Your task to perform on an android device: toggle translation in the chrome app Image 0: 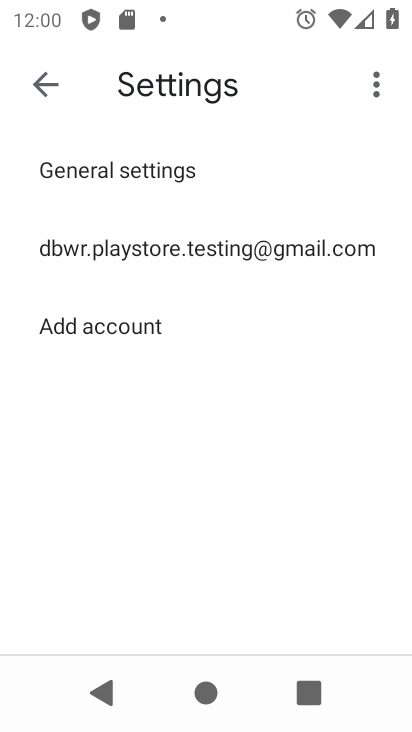
Step 0: press home button
Your task to perform on an android device: toggle translation in the chrome app Image 1: 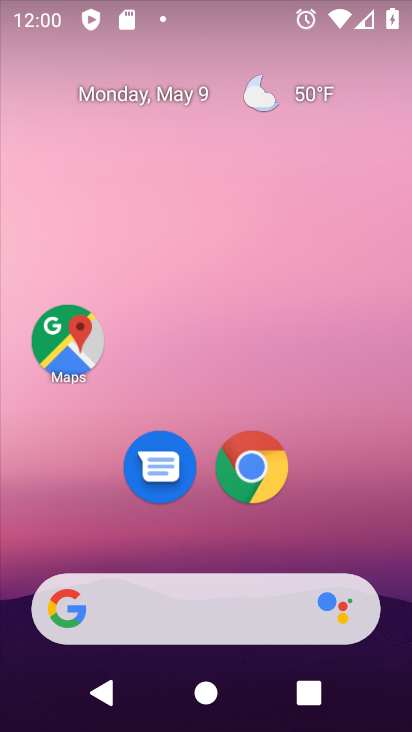
Step 1: click (250, 463)
Your task to perform on an android device: toggle translation in the chrome app Image 2: 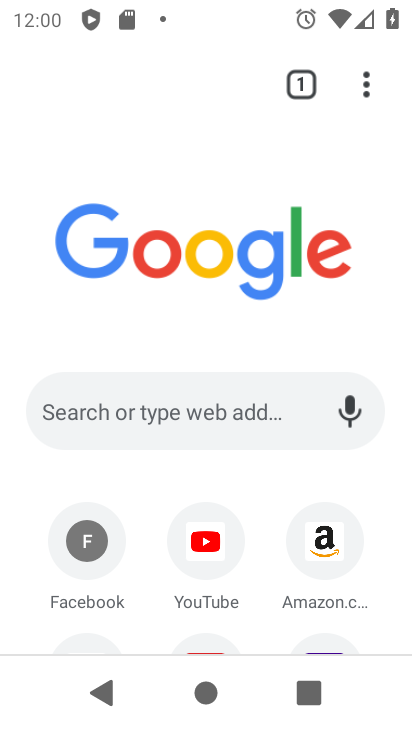
Step 2: click (367, 91)
Your task to perform on an android device: toggle translation in the chrome app Image 3: 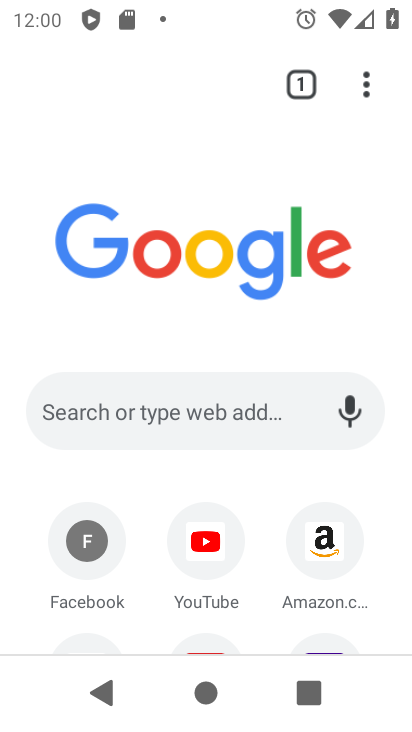
Step 3: click (366, 81)
Your task to perform on an android device: toggle translation in the chrome app Image 4: 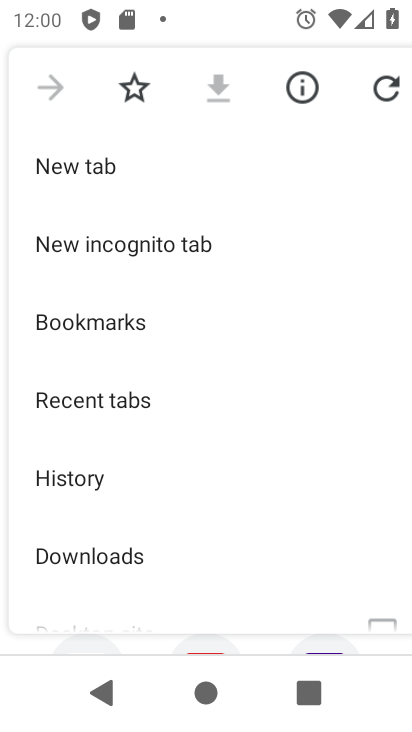
Step 4: drag from (158, 588) to (164, 211)
Your task to perform on an android device: toggle translation in the chrome app Image 5: 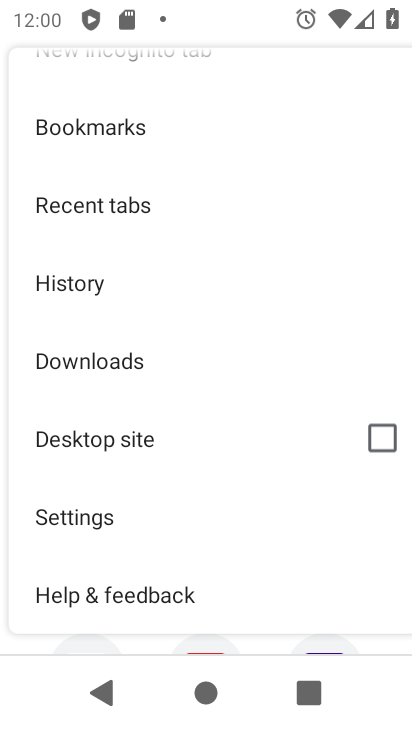
Step 5: click (168, 139)
Your task to perform on an android device: toggle translation in the chrome app Image 6: 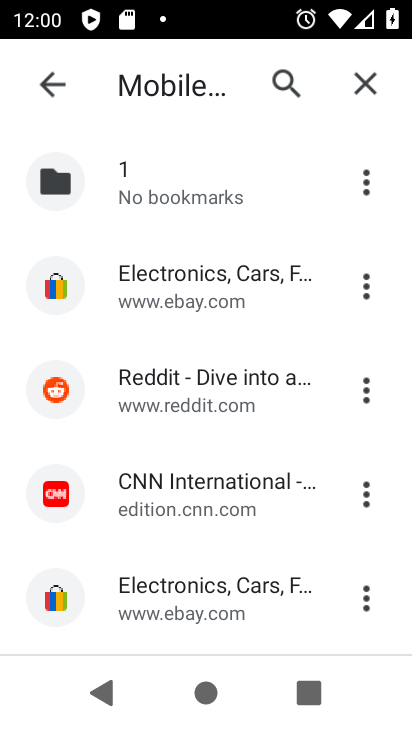
Step 6: click (353, 79)
Your task to perform on an android device: toggle translation in the chrome app Image 7: 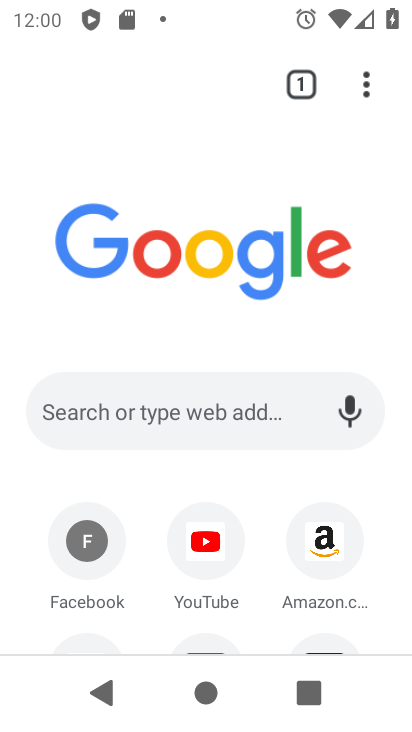
Step 7: click (362, 85)
Your task to perform on an android device: toggle translation in the chrome app Image 8: 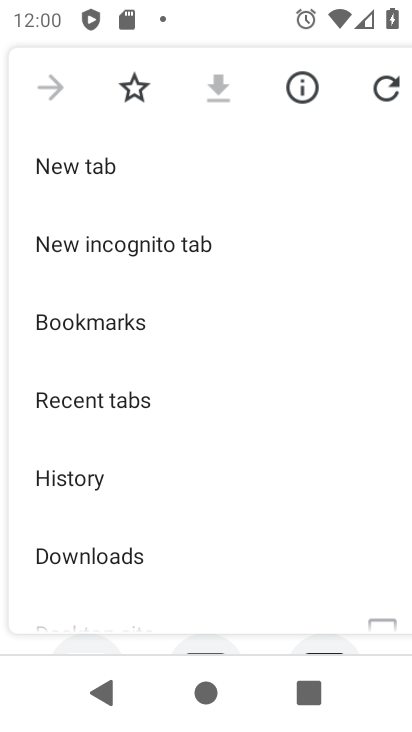
Step 8: drag from (203, 565) to (217, 102)
Your task to perform on an android device: toggle translation in the chrome app Image 9: 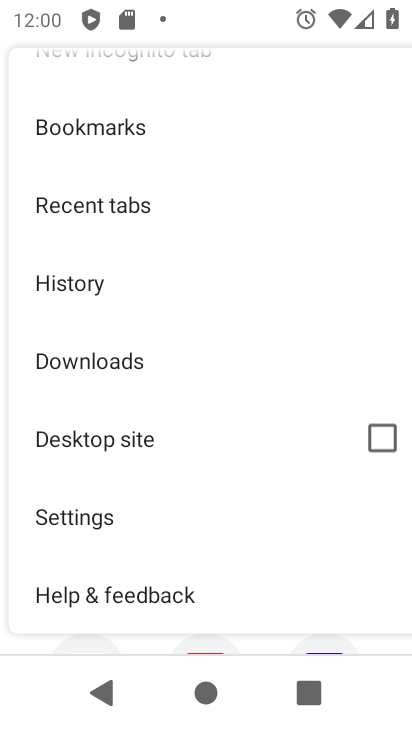
Step 9: click (122, 512)
Your task to perform on an android device: toggle translation in the chrome app Image 10: 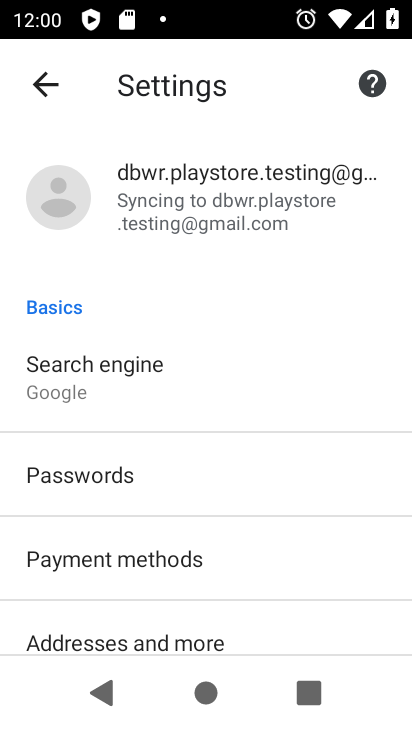
Step 10: drag from (245, 636) to (277, 166)
Your task to perform on an android device: toggle translation in the chrome app Image 11: 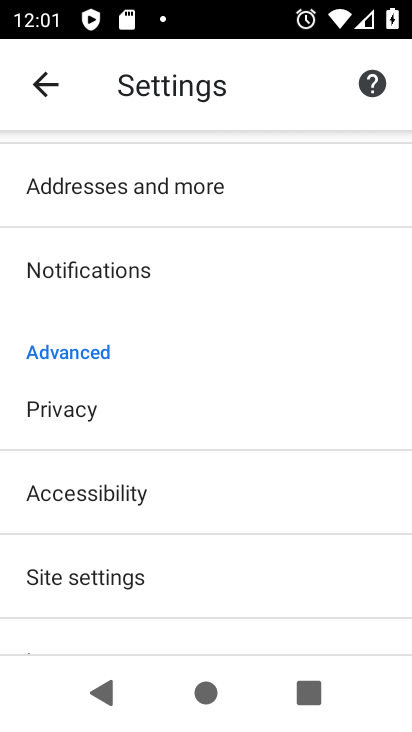
Step 11: drag from (167, 582) to (177, 271)
Your task to perform on an android device: toggle translation in the chrome app Image 12: 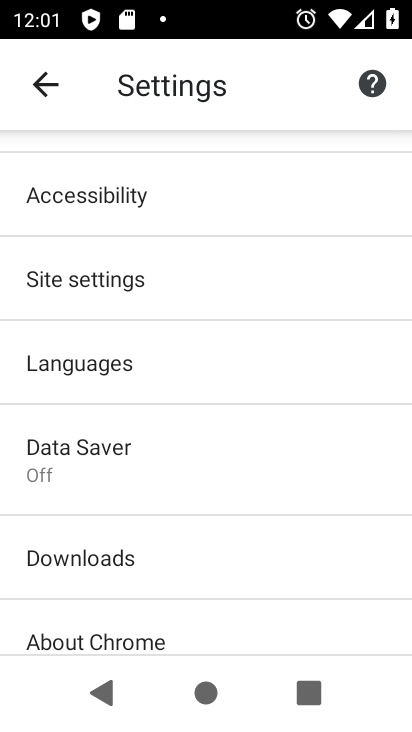
Step 12: click (149, 372)
Your task to perform on an android device: toggle translation in the chrome app Image 13: 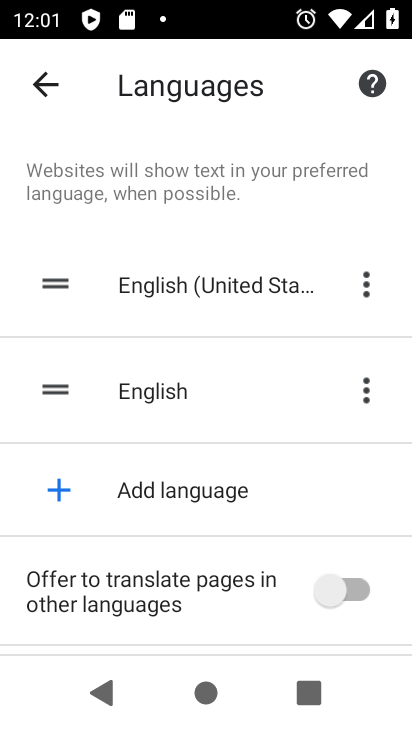
Step 13: click (353, 584)
Your task to perform on an android device: toggle translation in the chrome app Image 14: 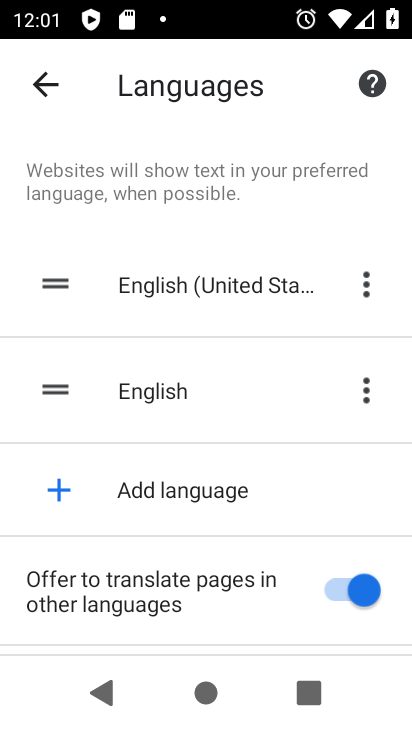
Step 14: task complete